Your task to perform on an android device: toggle location history Image 0: 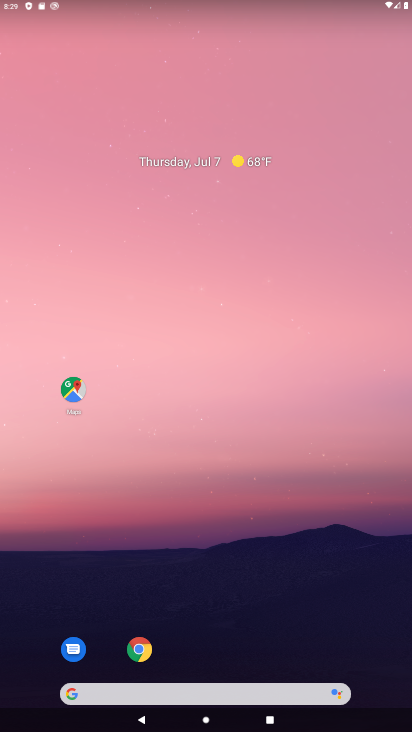
Step 0: drag from (215, 670) to (379, 27)
Your task to perform on an android device: toggle location history Image 1: 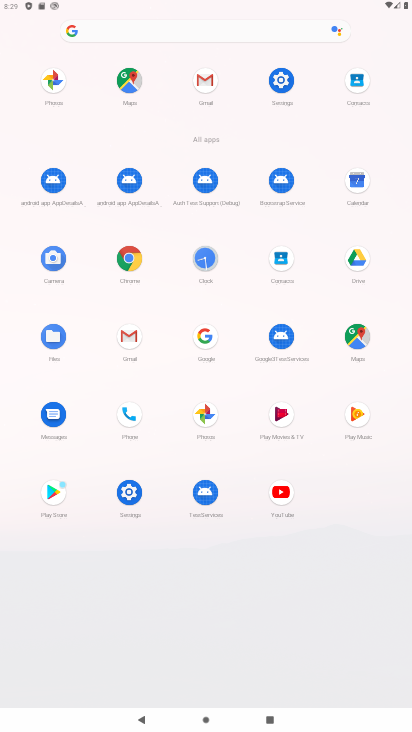
Step 1: click (127, 495)
Your task to perform on an android device: toggle location history Image 2: 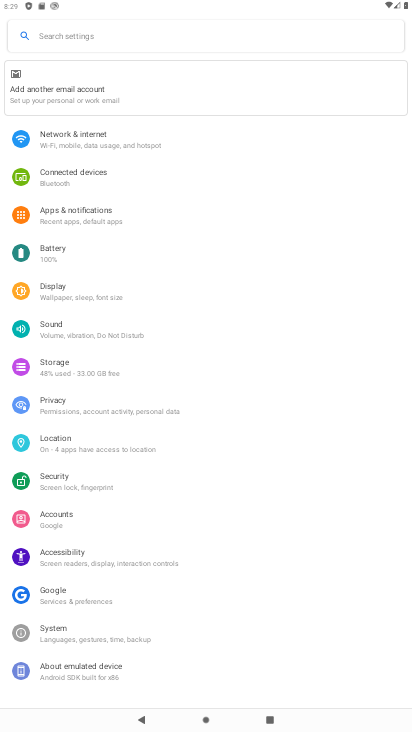
Step 2: click (47, 290)
Your task to perform on an android device: toggle location history Image 3: 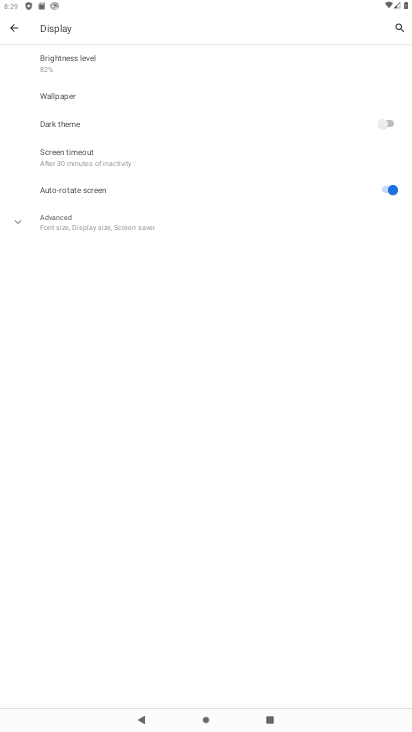
Step 3: click (48, 223)
Your task to perform on an android device: toggle location history Image 4: 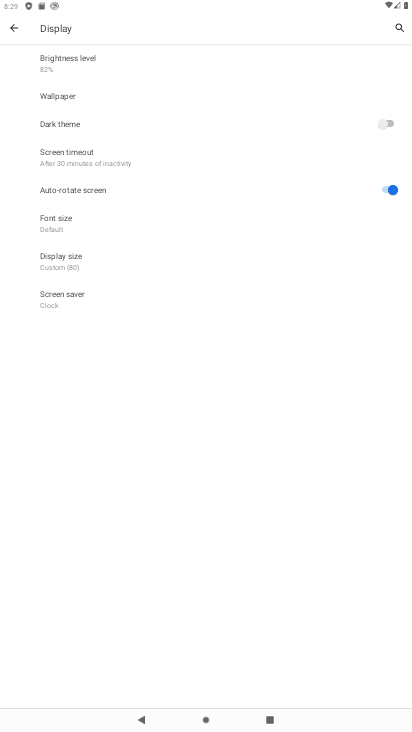
Step 4: drag from (60, 305) to (96, 435)
Your task to perform on an android device: toggle location history Image 5: 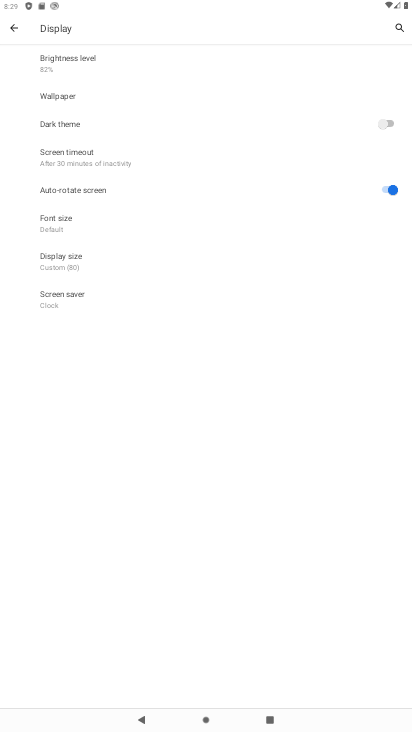
Step 5: click (67, 270)
Your task to perform on an android device: toggle location history Image 6: 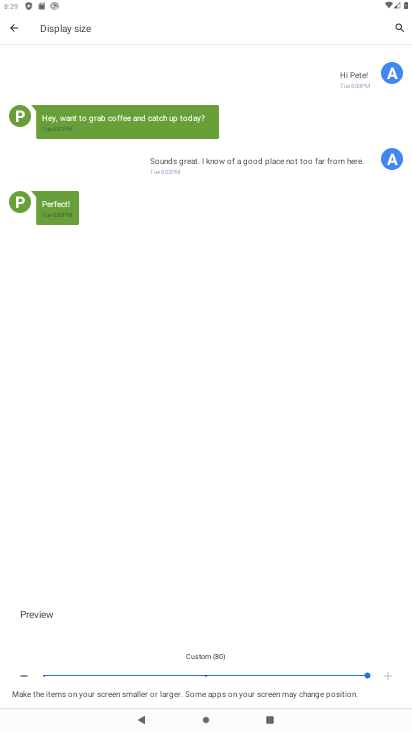
Step 6: click (270, 670)
Your task to perform on an android device: toggle location history Image 7: 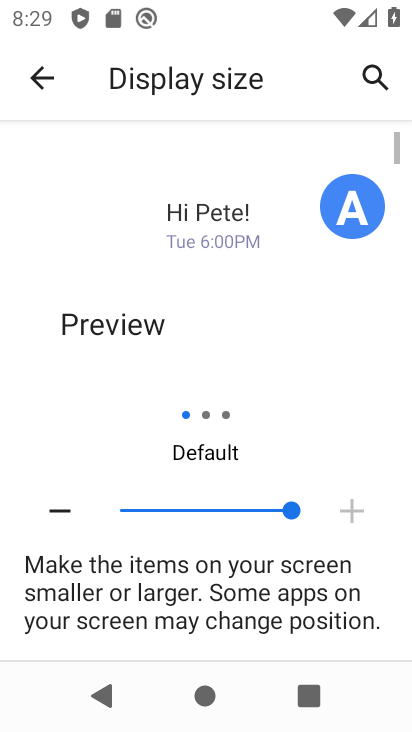
Step 7: click (266, 675)
Your task to perform on an android device: toggle location history Image 8: 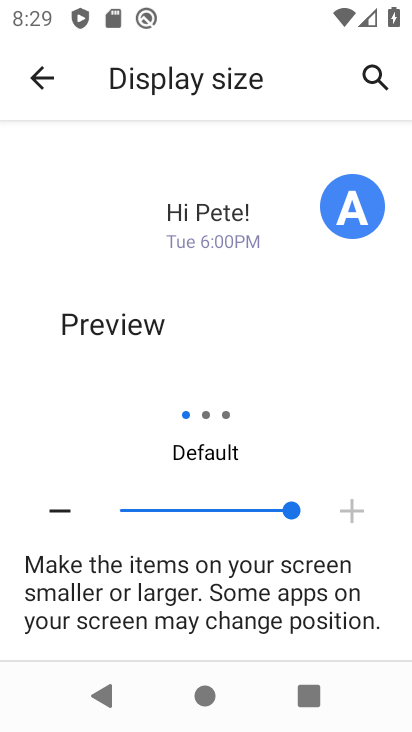
Step 8: click (39, 73)
Your task to perform on an android device: toggle location history Image 9: 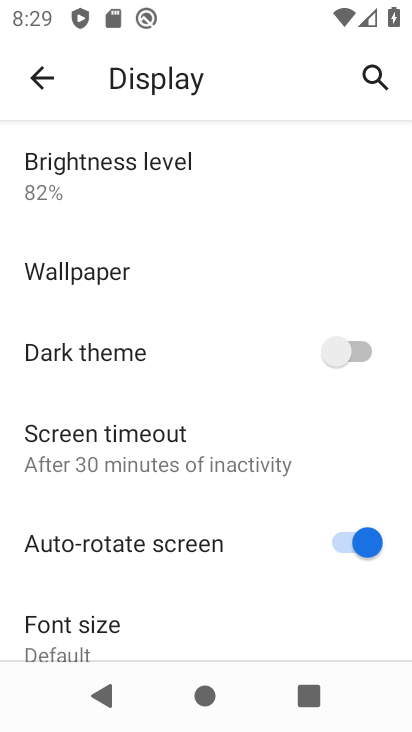
Step 9: drag from (154, 563) to (124, 352)
Your task to perform on an android device: toggle location history Image 10: 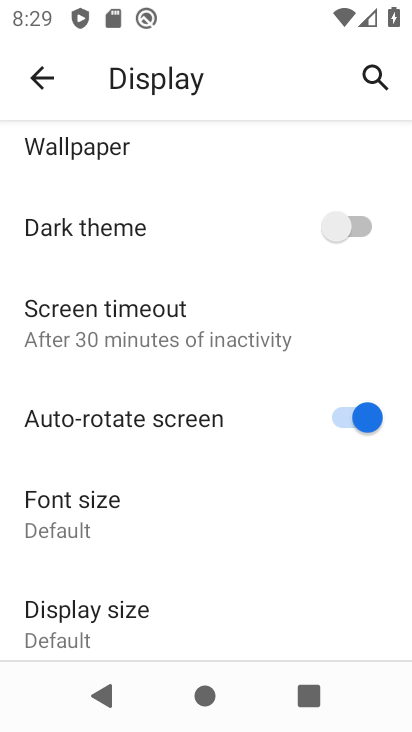
Step 10: click (130, 545)
Your task to perform on an android device: toggle location history Image 11: 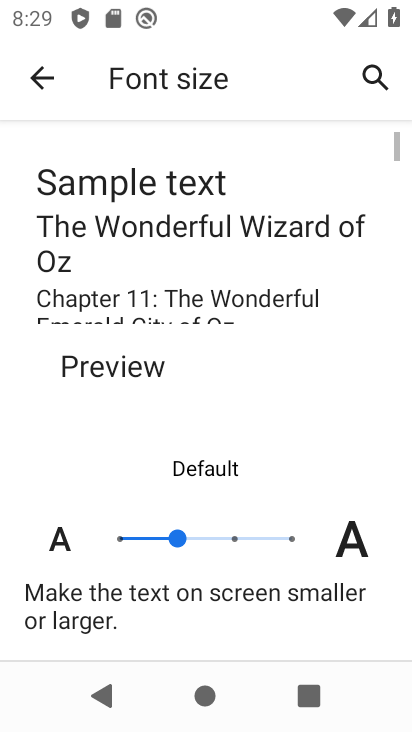
Step 11: click (232, 532)
Your task to perform on an android device: toggle location history Image 12: 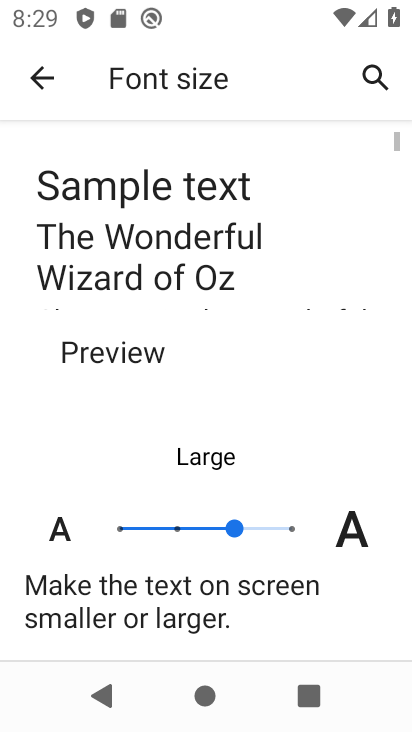
Step 12: click (115, 529)
Your task to perform on an android device: toggle location history Image 13: 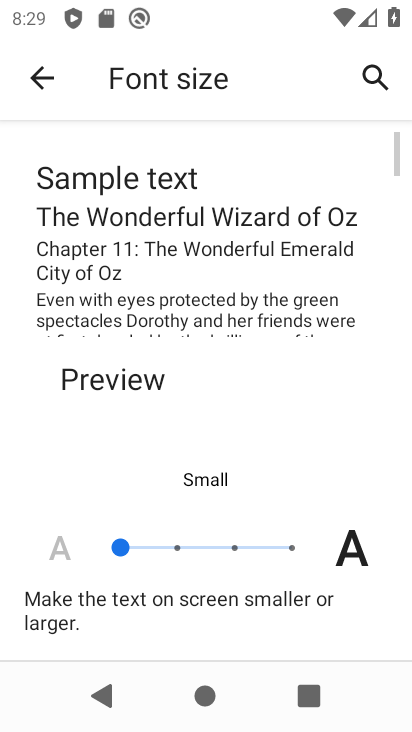
Step 13: task complete